Your task to perform on an android device: Open the calendar app, open the side menu, and click the "Day" option Image 0: 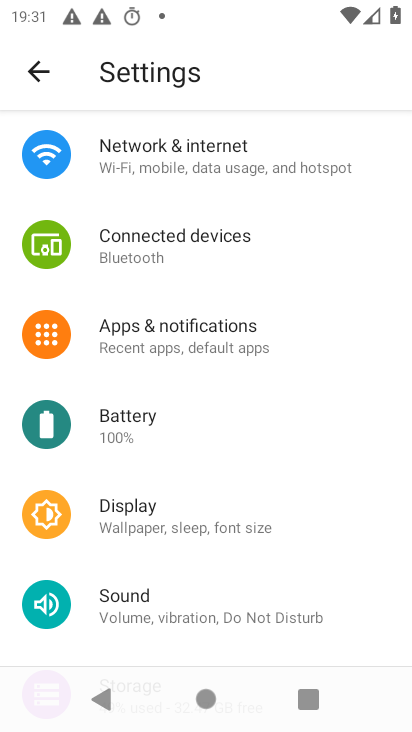
Step 0: press home button
Your task to perform on an android device: Open the calendar app, open the side menu, and click the "Day" option Image 1: 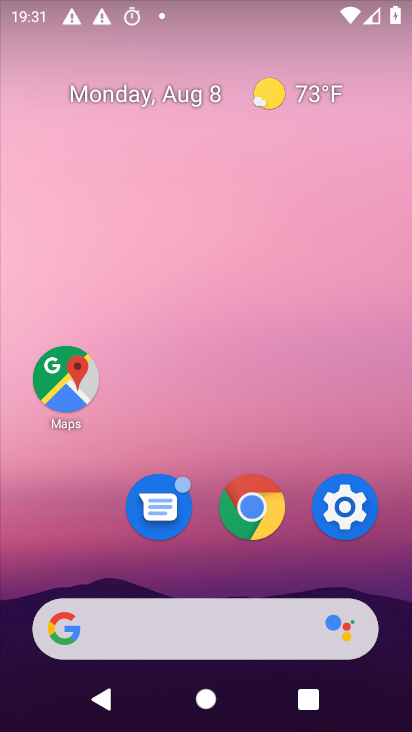
Step 1: drag from (241, 629) to (190, 158)
Your task to perform on an android device: Open the calendar app, open the side menu, and click the "Day" option Image 2: 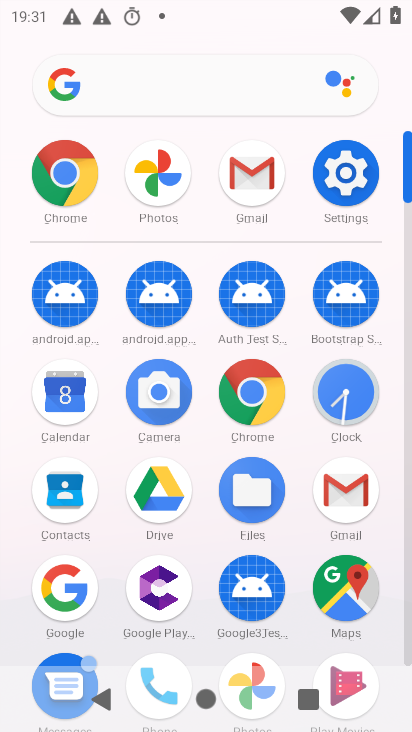
Step 2: click (53, 406)
Your task to perform on an android device: Open the calendar app, open the side menu, and click the "Day" option Image 3: 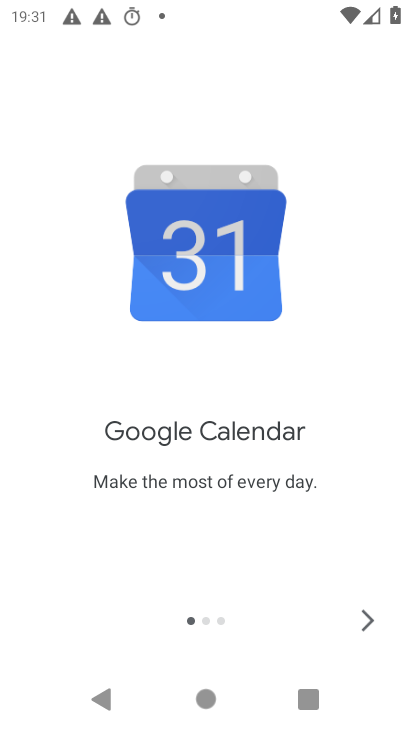
Step 3: click (364, 611)
Your task to perform on an android device: Open the calendar app, open the side menu, and click the "Day" option Image 4: 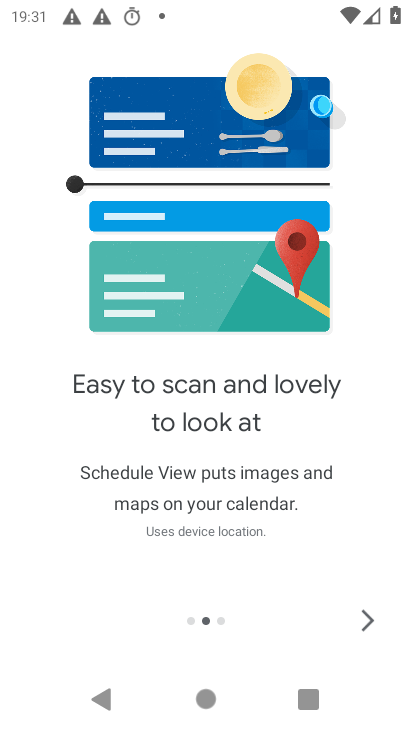
Step 4: click (357, 610)
Your task to perform on an android device: Open the calendar app, open the side menu, and click the "Day" option Image 5: 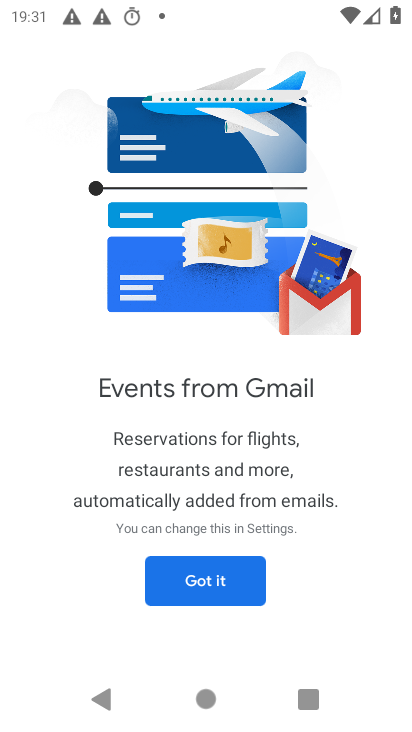
Step 5: click (168, 578)
Your task to perform on an android device: Open the calendar app, open the side menu, and click the "Day" option Image 6: 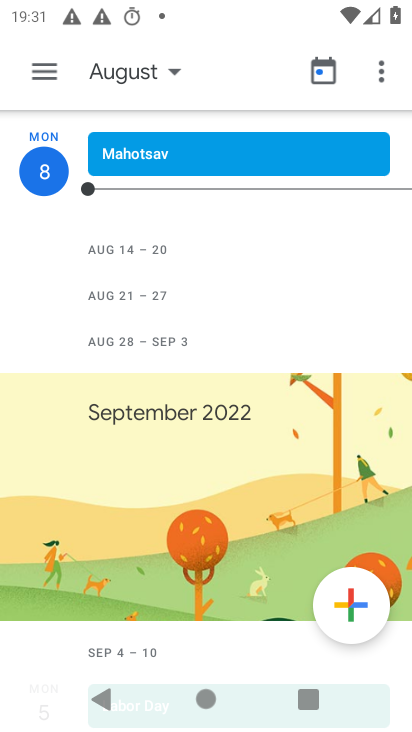
Step 6: click (49, 75)
Your task to perform on an android device: Open the calendar app, open the side menu, and click the "Day" option Image 7: 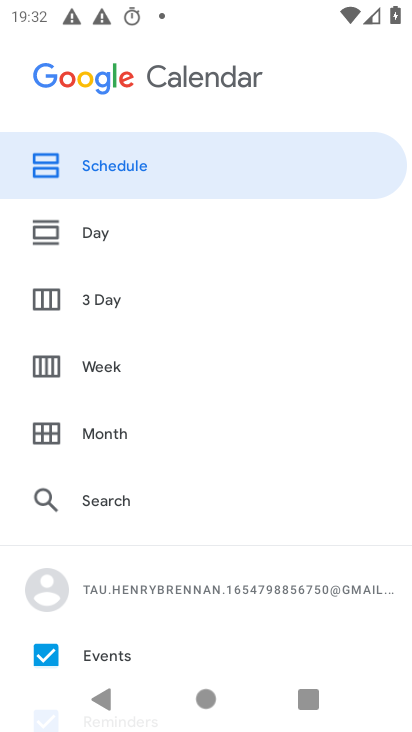
Step 7: click (108, 240)
Your task to perform on an android device: Open the calendar app, open the side menu, and click the "Day" option Image 8: 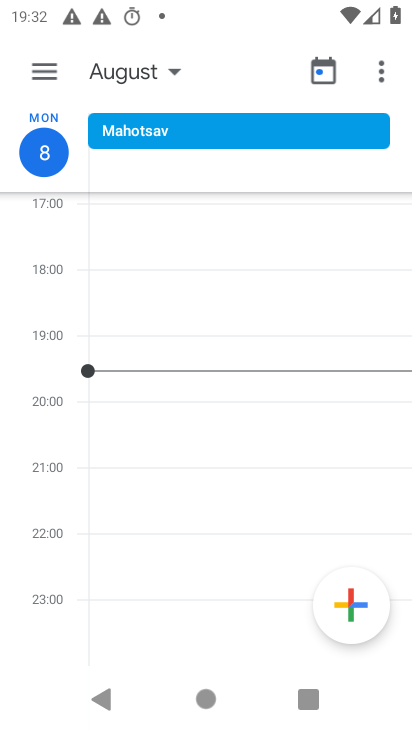
Step 8: task complete